Your task to perform on an android device: all mails in gmail Image 0: 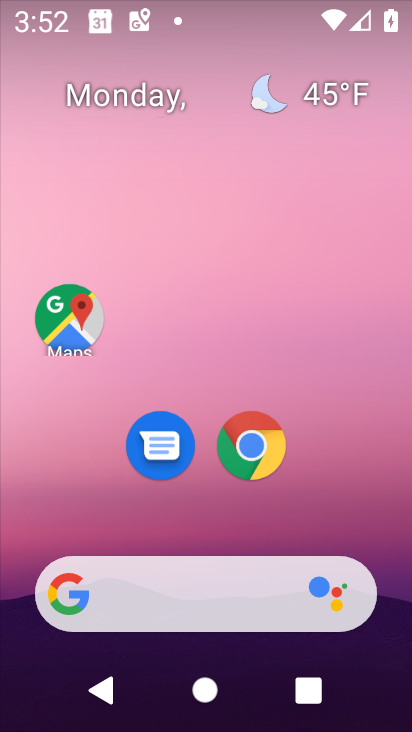
Step 0: drag from (339, 502) to (284, 39)
Your task to perform on an android device: all mails in gmail Image 1: 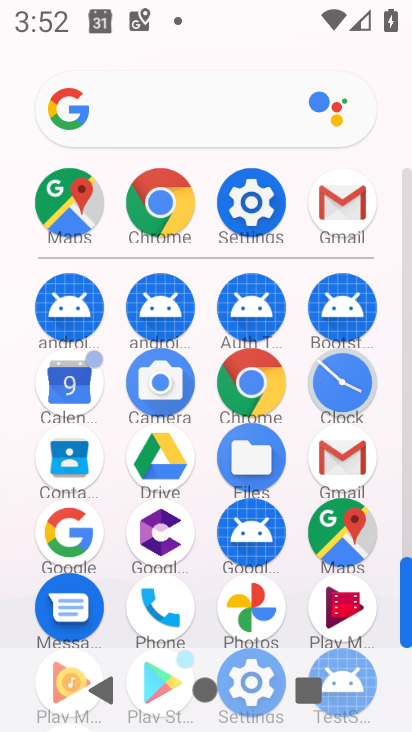
Step 1: click (364, 216)
Your task to perform on an android device: all mails in gmail Image 2: 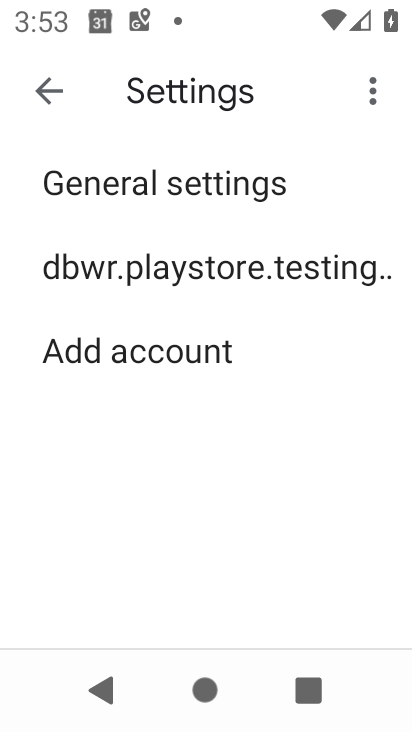
Step 2: click (31, 92)
Your task to perform on an android device: all mails in gmail Image 3: 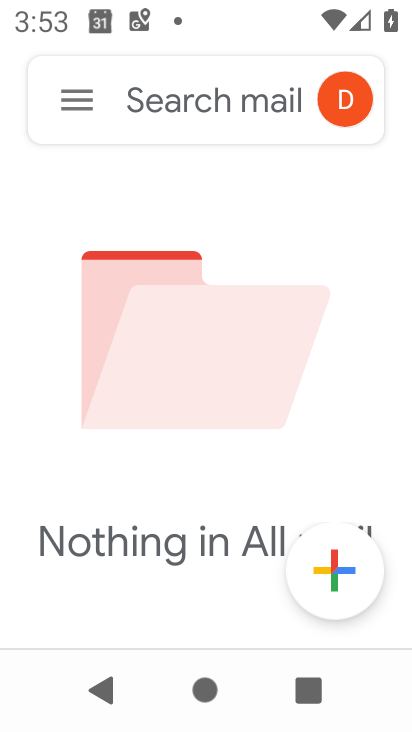
Step 3: click (72, 93)
Your task to perform on an android device: all mails in gmail Image 4: 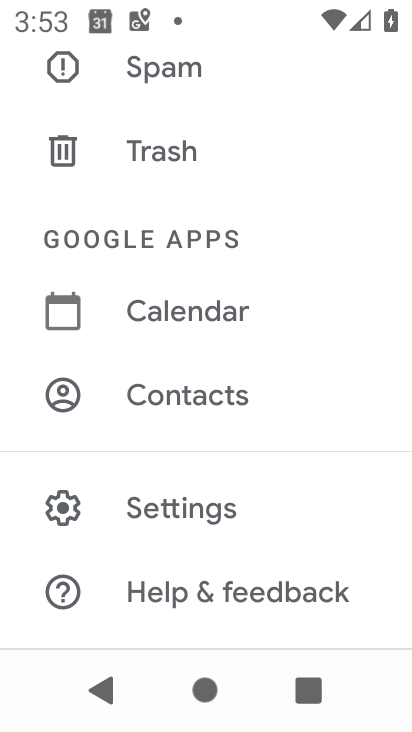
Step 4: drag from (190, 183) to (271, 408)
Your task to perform on an android device: all mails in gmail Image 5: 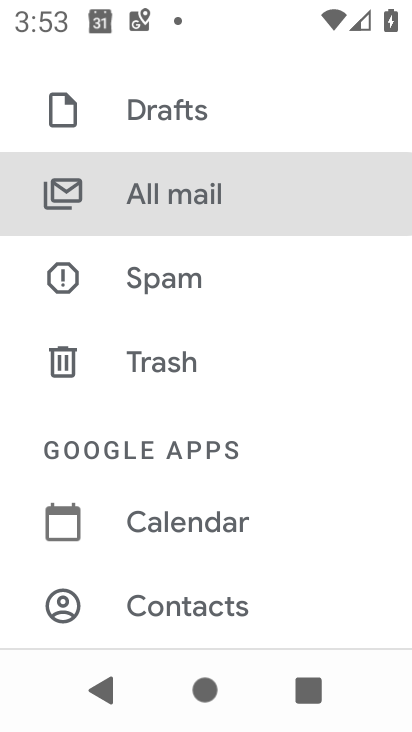
Step 5: click (279, 206)
Your task to perform on an android device: all mails in gmail Image 6: 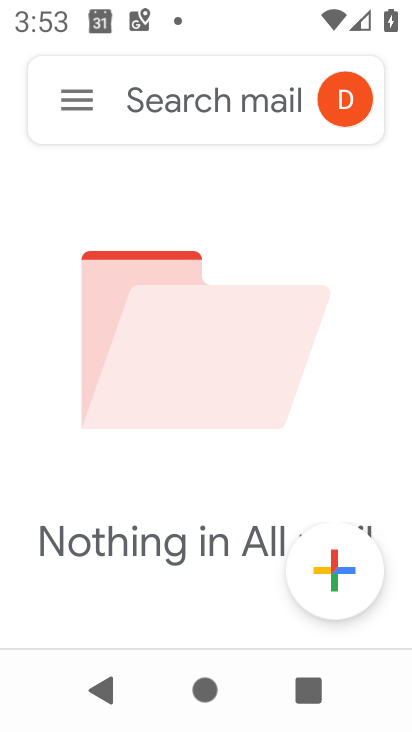
Step 6: task complete